Your task to perform on an android device: Go to Android settings Image 0: 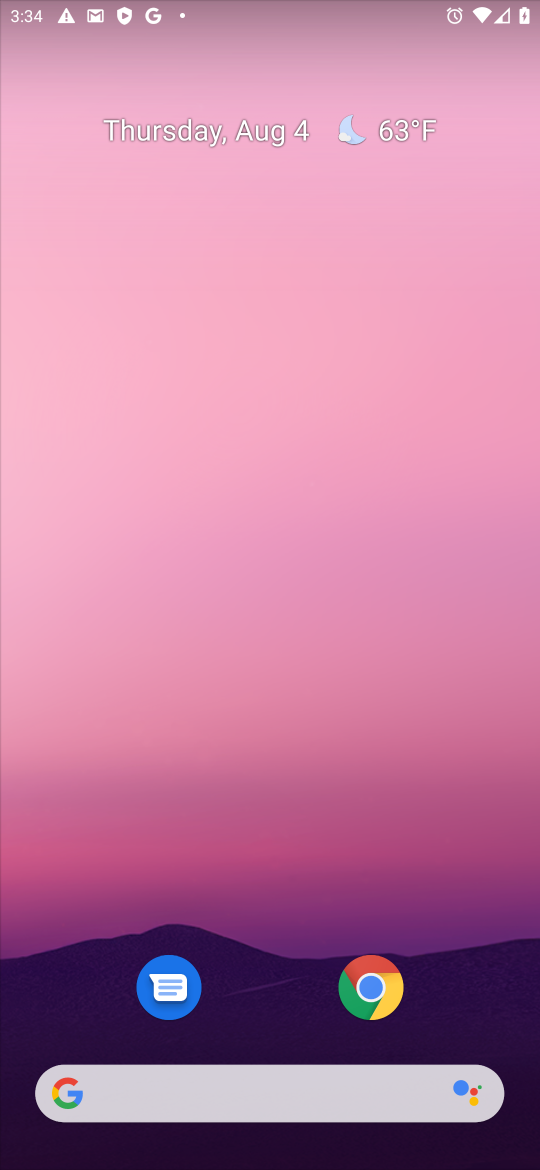
Step 0: drag from (244, 804) to (285, 337)
Your task to perform on an android device: Go to Android settings Image 1: 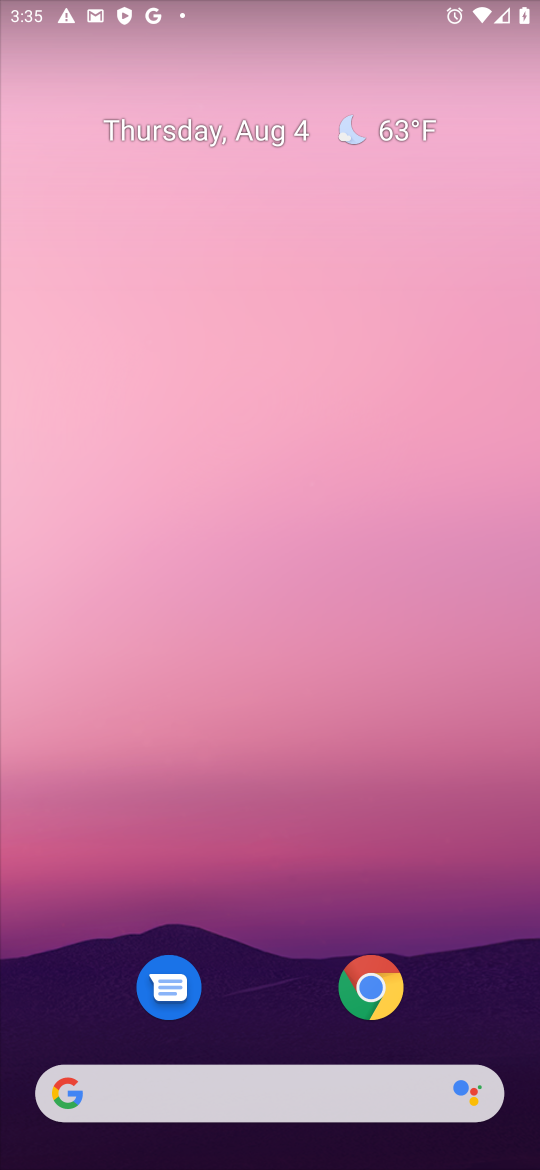
Step 1: drag from (199, 624) to (207, 330)
Your task to perform on an android device: Go to Android settings Image 2: 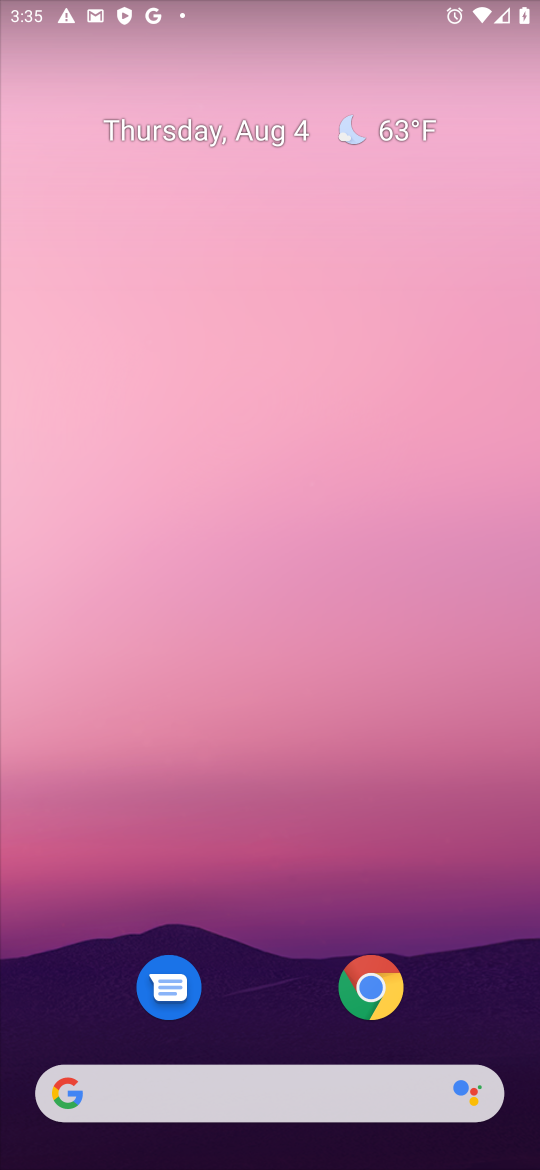
Step 2: drag from (240, 843) to (199, 319)
Your task to perform on an android device: Go to Android settings Image 3: 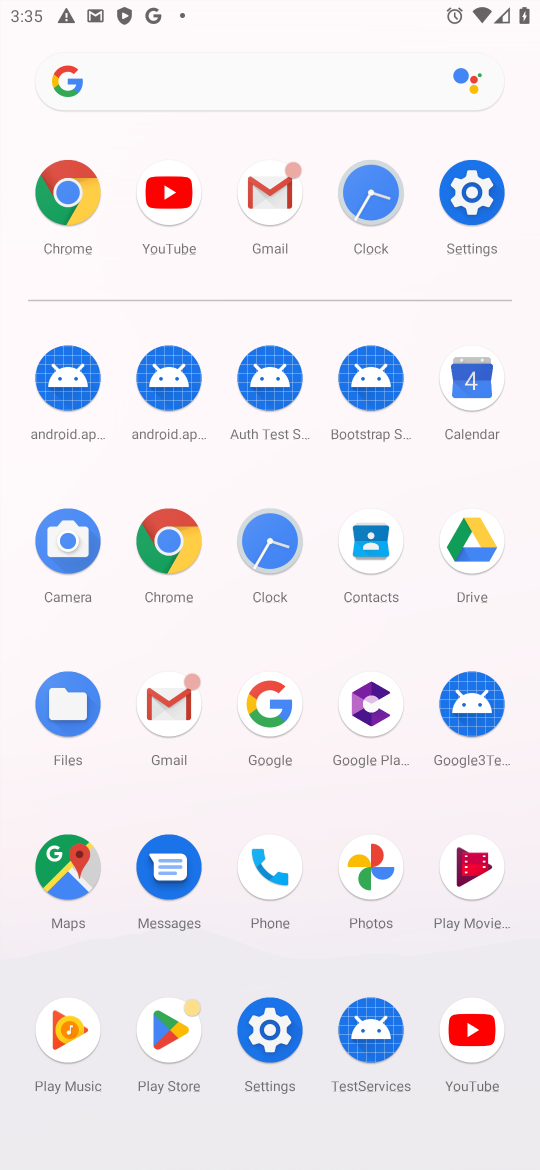
Step 3: click (468, 189)
Your task to perform on an android device: Go to Android settings Image 4: 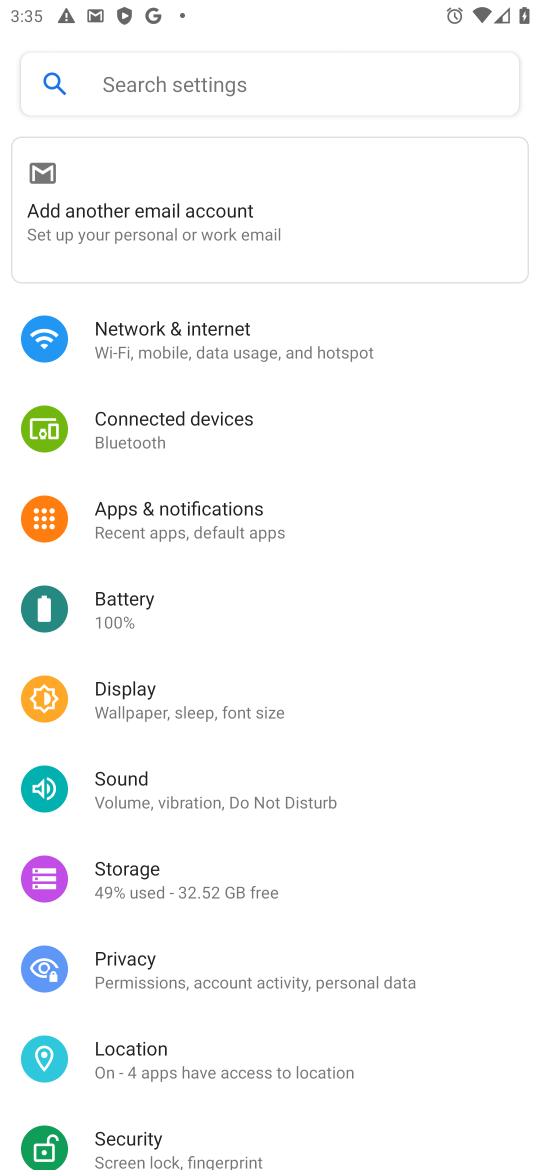
Step 4: drag from (162, 883) to (179, 315)
Your task to perform on an android device: Go to Android settings Image 5: 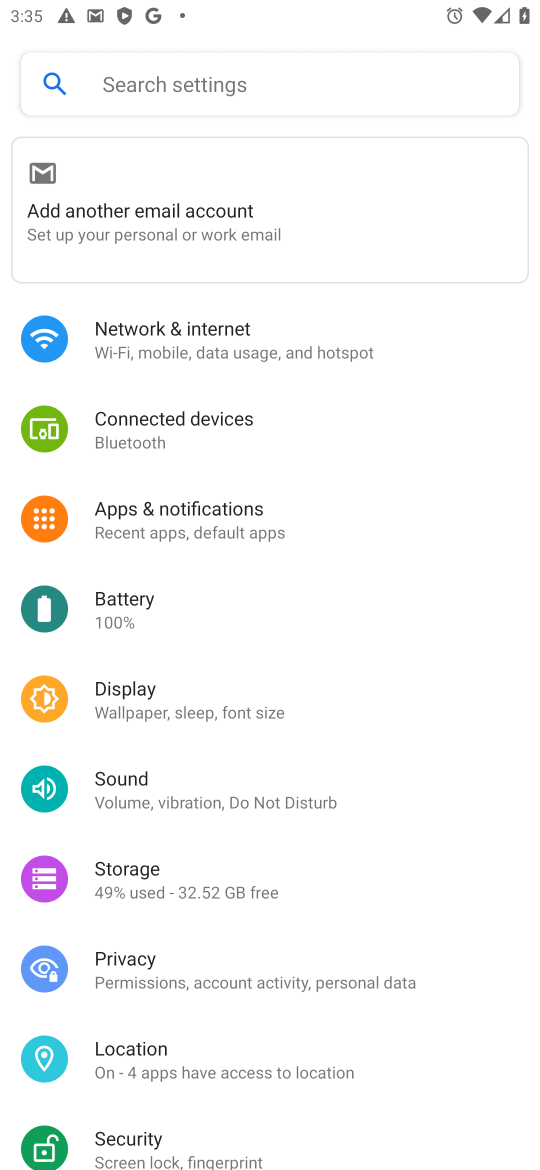
Step 5: drag from (144, 861) to (175, 575)
Your task to perform on an android device: Go to Android settings Image 6: 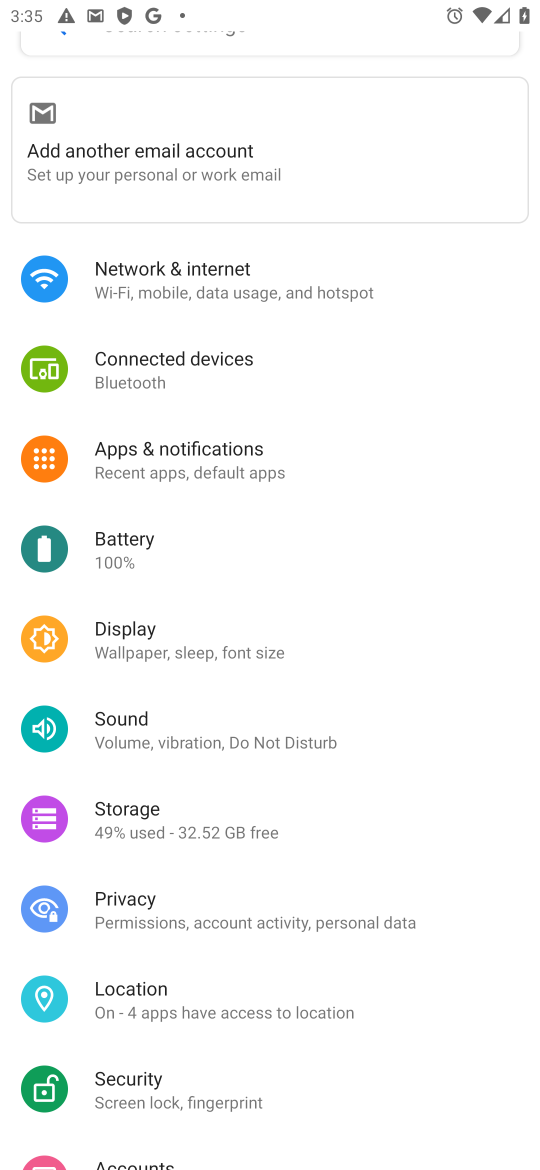
Step 6: drag from (212, 841) to (240, 677)
Your task to perform on an android device: Go to Android settings Image 7: 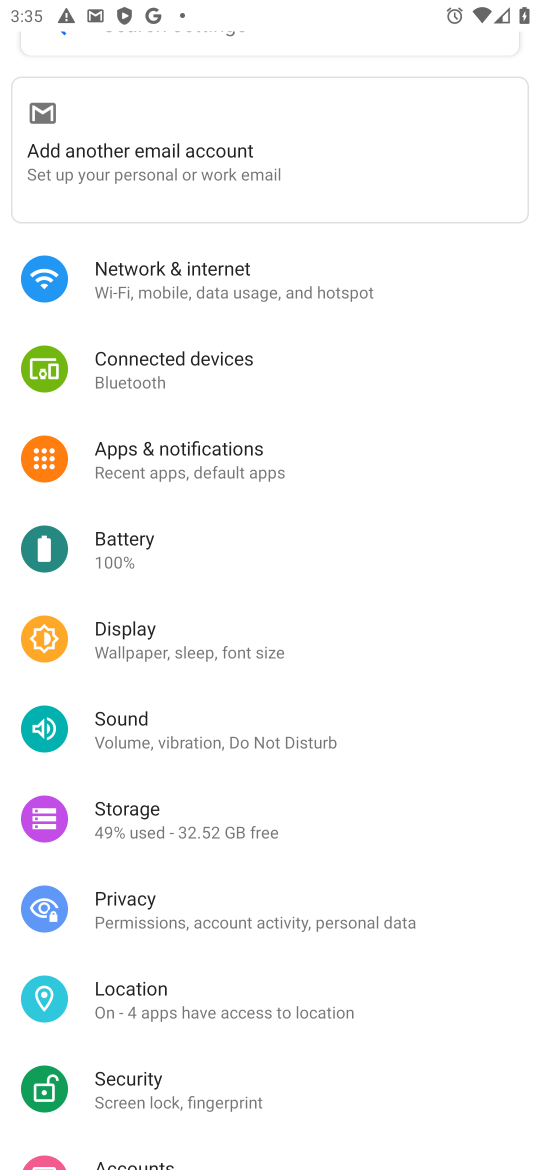
Step 7: drag from (205, 789) to (225, 469)
Your task to perform on an android device: Go to Android settings Image 8: 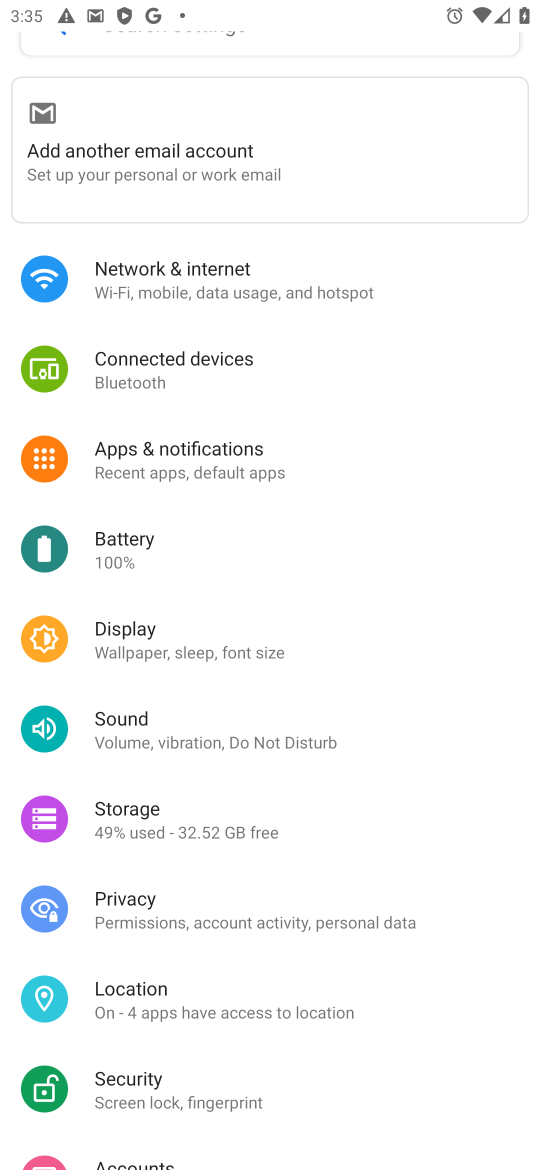
Step 8: drag from (173, 1049) to (173, 679)
Your task to perform on an android device: Go to Android settings Image 9: 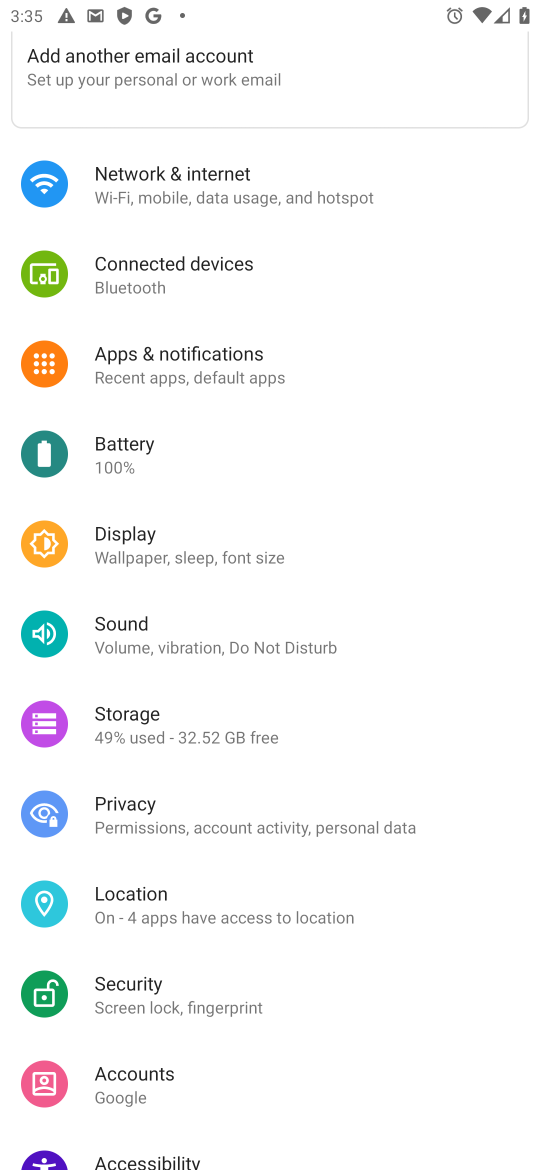
Step 9: drag from (195, 1005) to (179, 534)
Your task to perform on an android device: Go to Android settings Image 10: 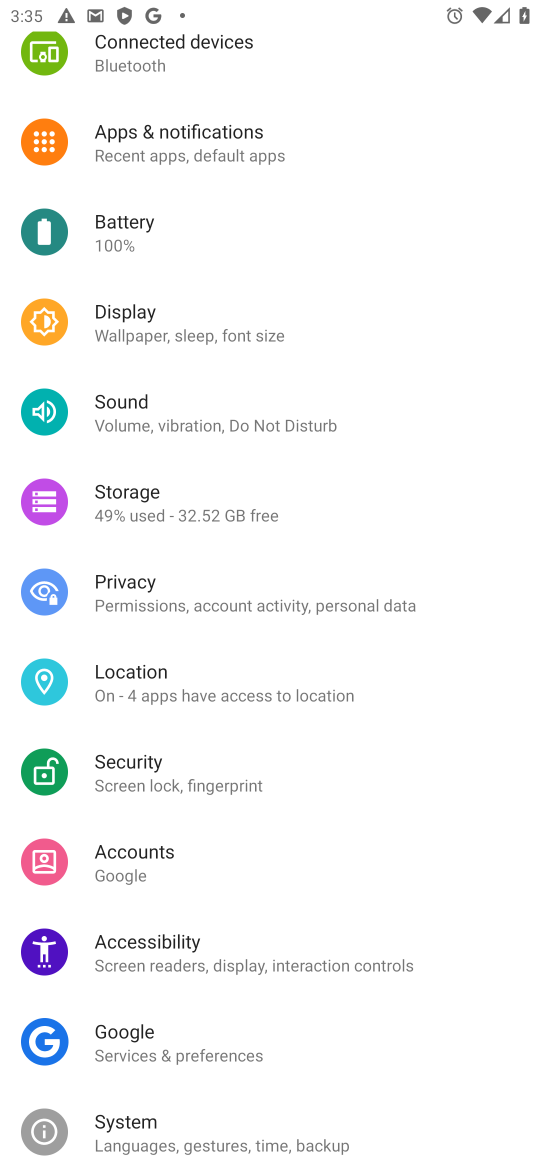
Step 10: drag from (195, 1075) to (250, 650)
Your task to perform on an android device: Go to Android settings Image 11: 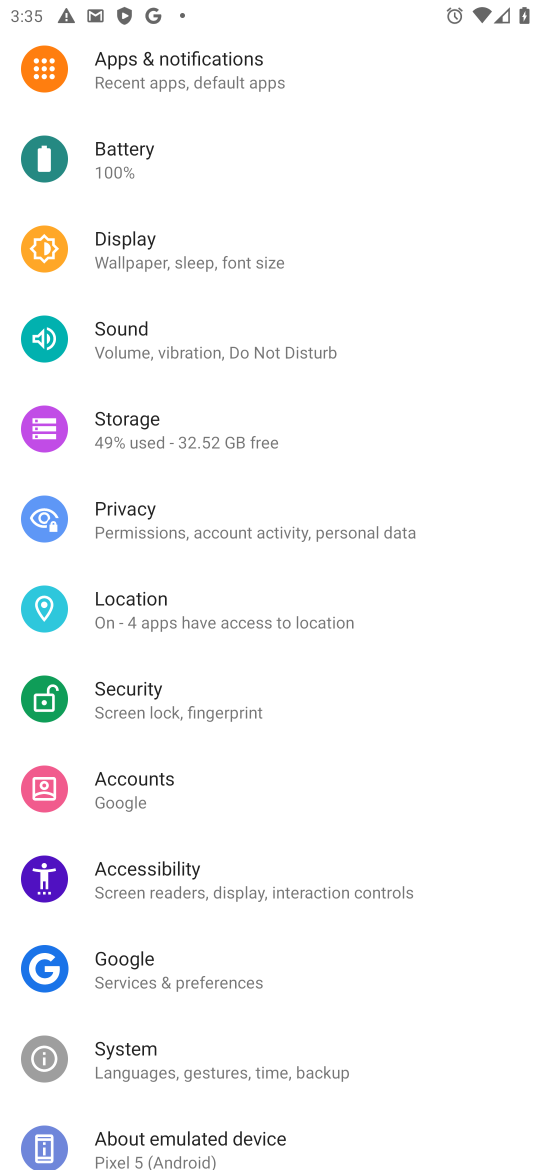
Step 11: click (176, 1145)
Your task to perform on an android device: Go to Android settings Image 12: 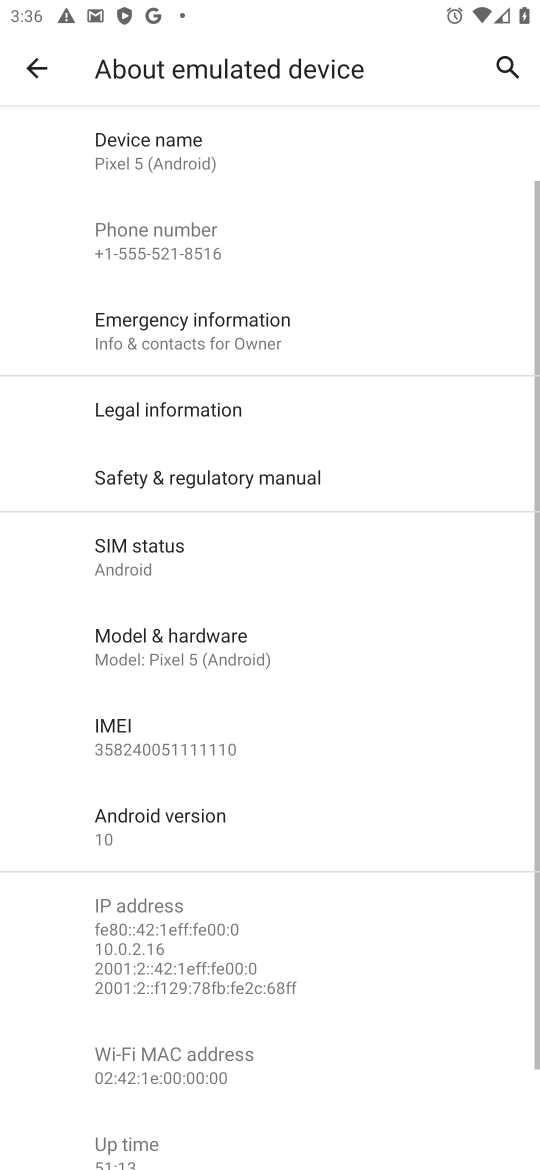
Step 12: click (144, 827)
Your task to perform on an android device: Go to Android settings Image 13: 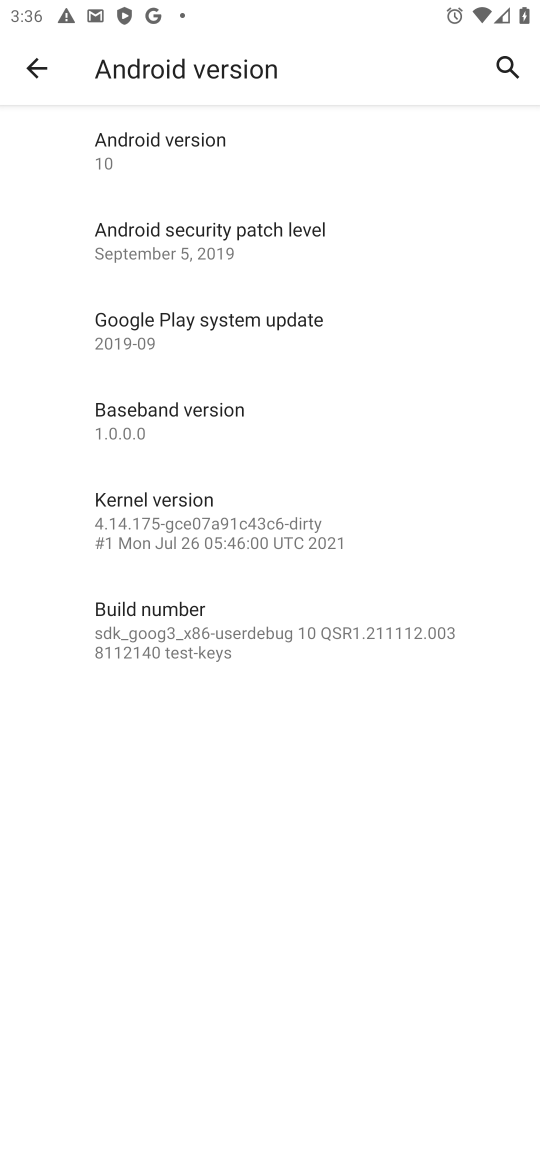
Step 13: task complete